Your task to perform on an android device: make emails show in primary in the gmail app Image 0: 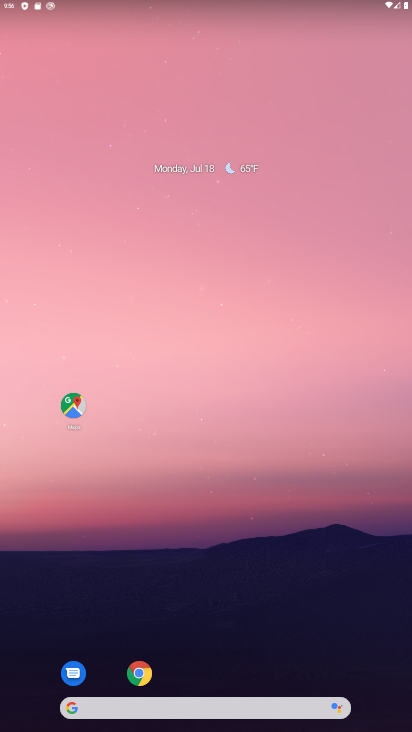
Step 0: drag from (221, 639) to (286, 296)
Your task to perform on an android device: make emails show in primary in the gmail app Image 1: 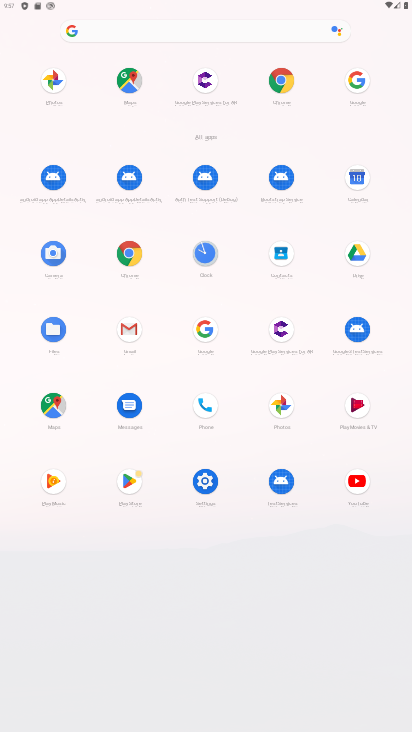
Step 1: click (122, 327)
Your task to perform on an android device: make emails show in primary in the gmail app Image 2: 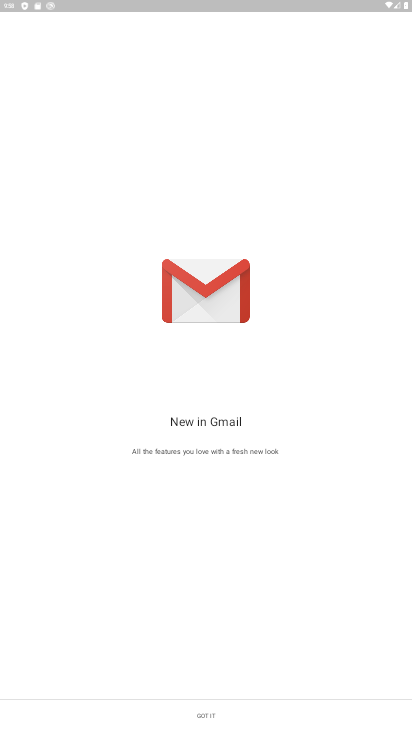
Step 2: click (218, 719)
Your task to perform on an android device: make emails show in primary in the gmail app Image 3: 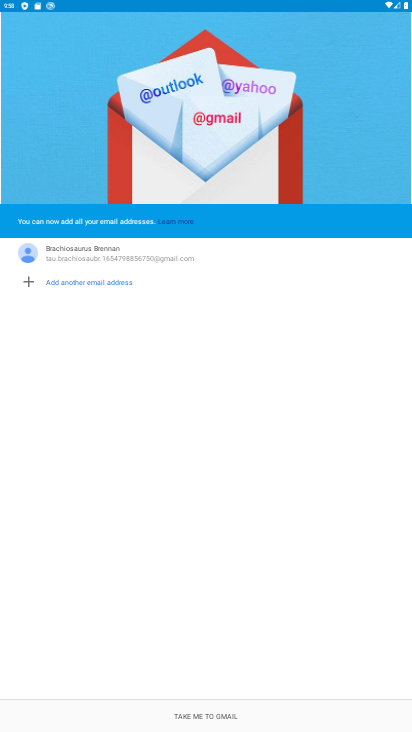
Step 3: click (218, 717)
Your task to perform on an android device: make emails show in primary in the gmail app Image 4: 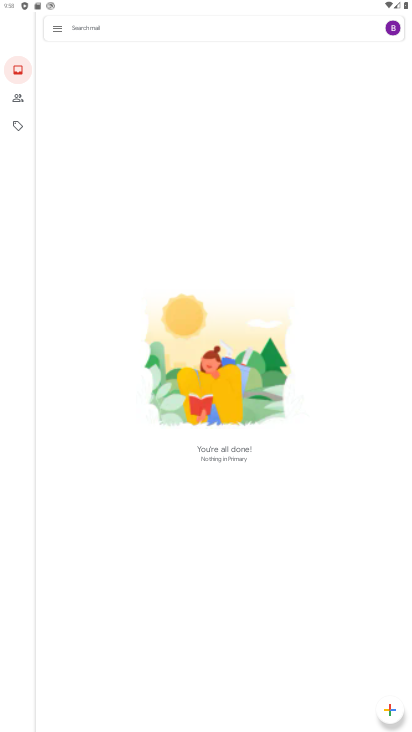
Step 4: click (57, 24)
Your task to perform on an android device: make emails show in primary in the gmail app Image 5: 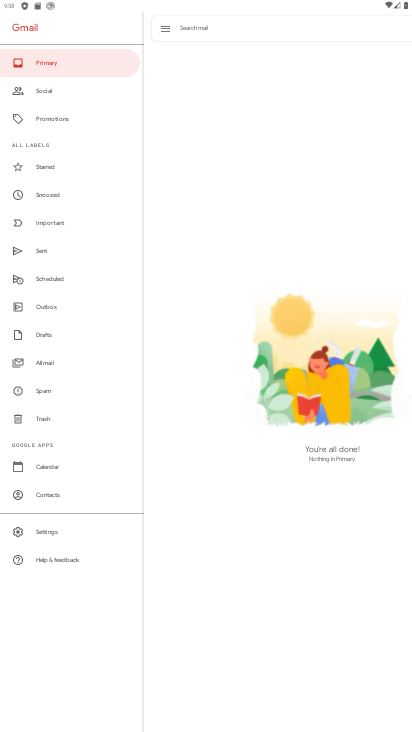
Step 5: click (49, 531)
Your task to perform on an android device: make emails show in primary in the gmail app Image 6: 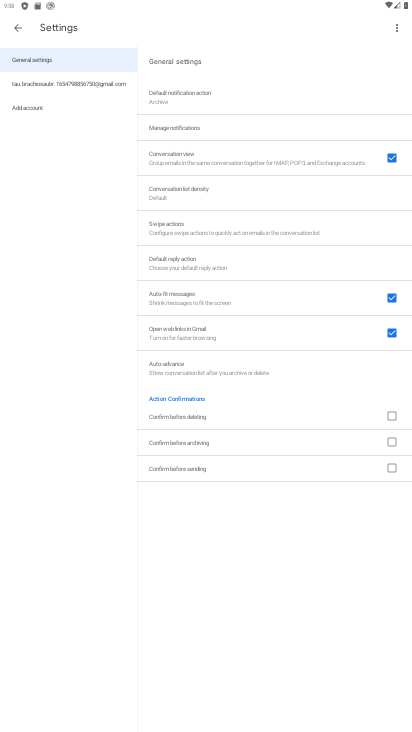
Step 6: click (15, 80)
Your task to perform on an android device: make emails show in primary in the gmail app Image 7: 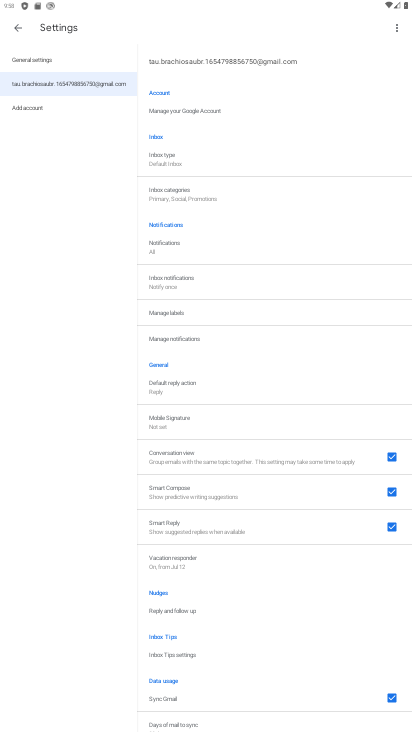
Step 7: click (172, 195)
Your task to perform on an android device: make emails show in primary in the gmail app Image 8: 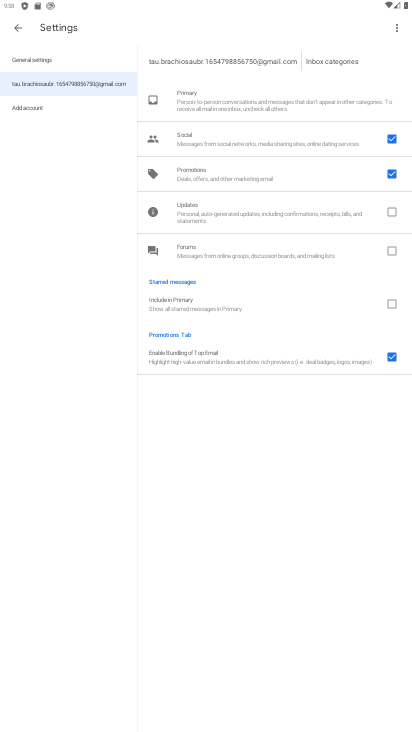
Step 8: click (395, 172)
Your task to perform on an android device: make emails show in primary in the gmail app Image 9: 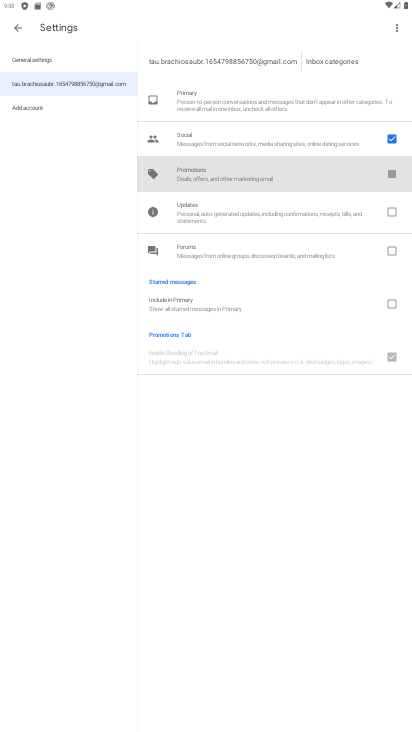
Step 9: click (388, 137)
Your task to perform on an android device: make emails show in primary in the gmail app Image 10: 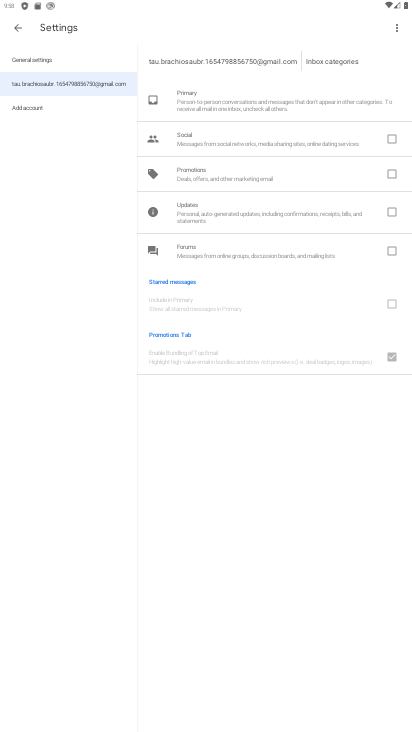
Step 10: click (13, 24)
Your task to perform on an android device: make emails show in primary in the gmail app Image 11: 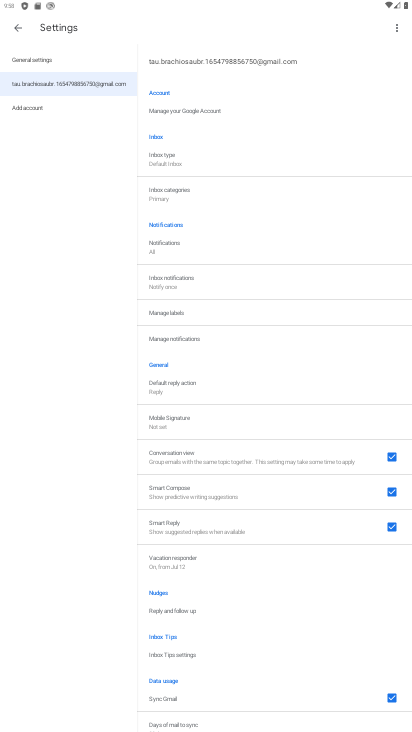
Step 11: click (13, 25)
Your task to perform on an android device: make emails show in primary in the gmail app Image 12: 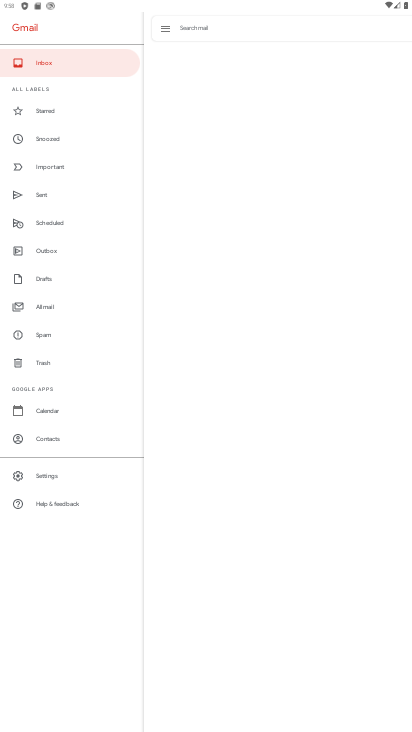
Step 12: task complete